Your task to perform on an android device: see tabs open on other devices in the chrome app Image 0: 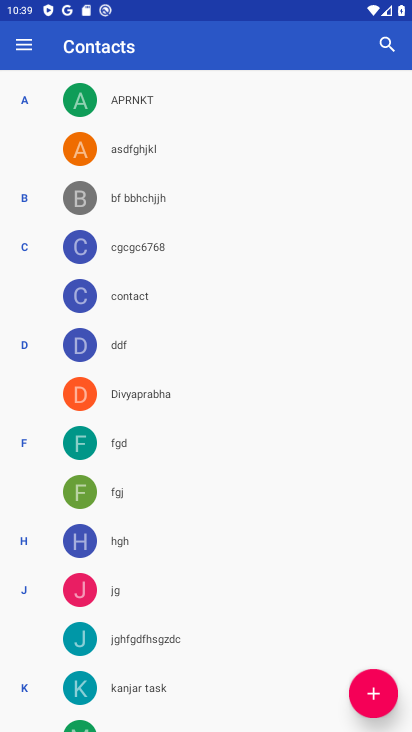
Step 0: press home button
Your task to perform on an android device: see tabs open on other devices in the chrome app Image 1: 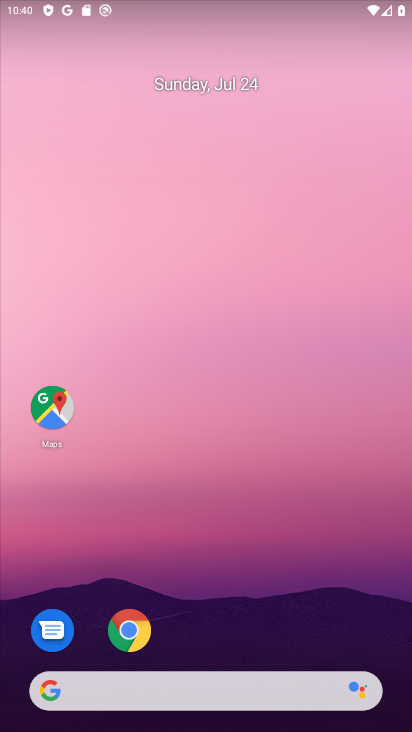
Step 1: click (132, 638)
Your task to perform on an android device: see tabs open on other devices in the chrome app Image 2: 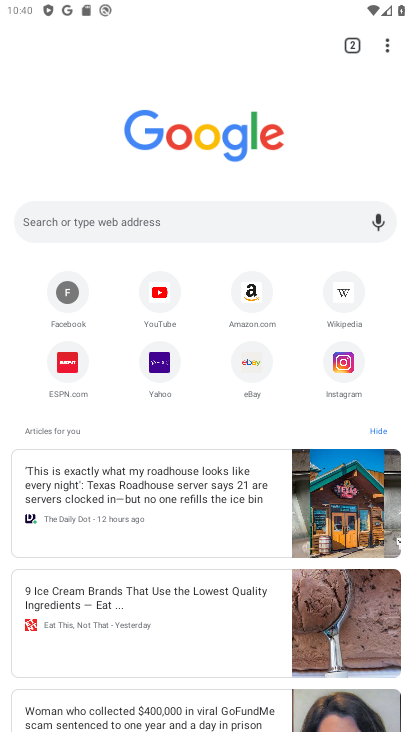
Step 2: task complete